Your task to perform on an android device: Open calendar and show me the first week of next month Image 0: 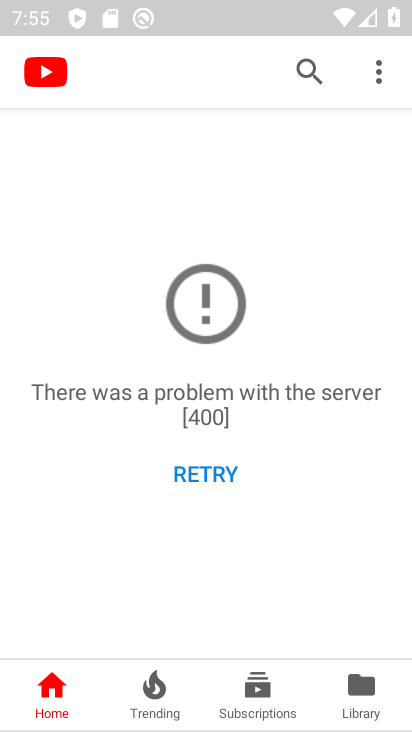
Step 0: press back button
Your task to perform on an android device: Open calendar and show me the first week of next month Image 1: 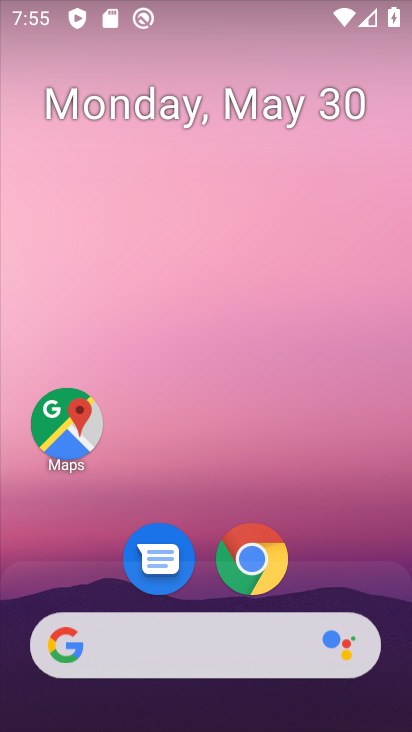
Step 1: drag from (206, 409) to (276, 48)
Your task to perform on an android device: Open calendar and show me the first week of next month Image 2: 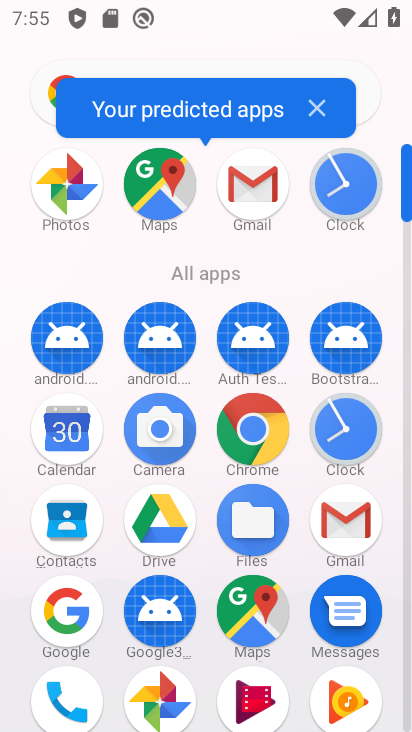
Step 2: click (75, 430)
Your task to perform on an android device: Open calendar and show me the first week of next month Image 3: 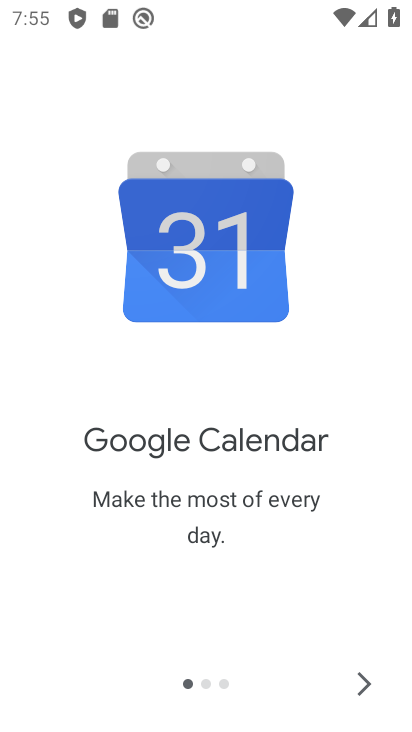
Step 3: click (357, 670)
Your task to perform on an android device: Open calendar and show me the first week of next month Image 4: 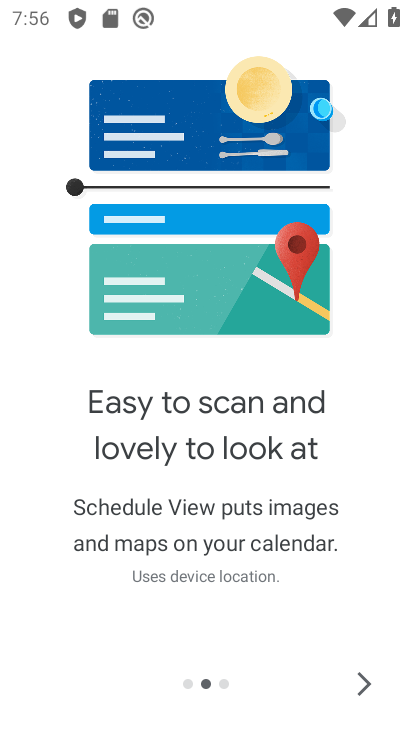
Step 4: click (351, 678)
Your task to perform on an android device: Open calendar and show me the first week of next month Image 5: 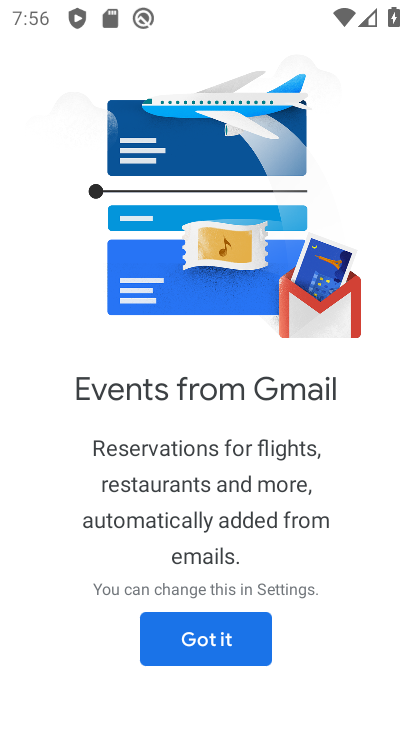
Step 5: click (228, 632)
Your task to perform on an android device: Open calendar and show me the first week of next month Image 6: 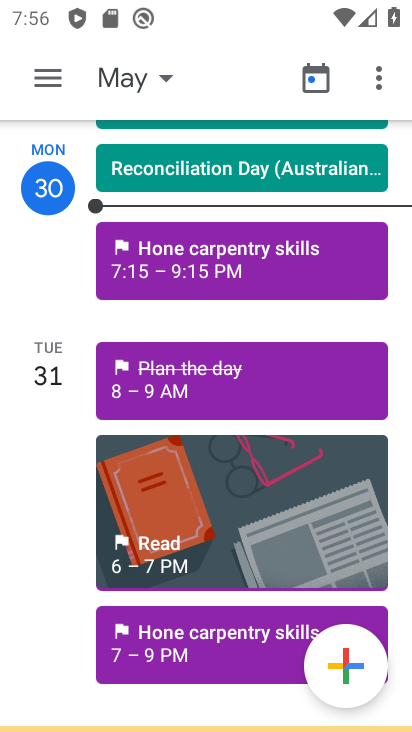
Step 6: click (158, 82)
Your task to perform on an android device: Open calendar and show me the first week of next month Image 7: 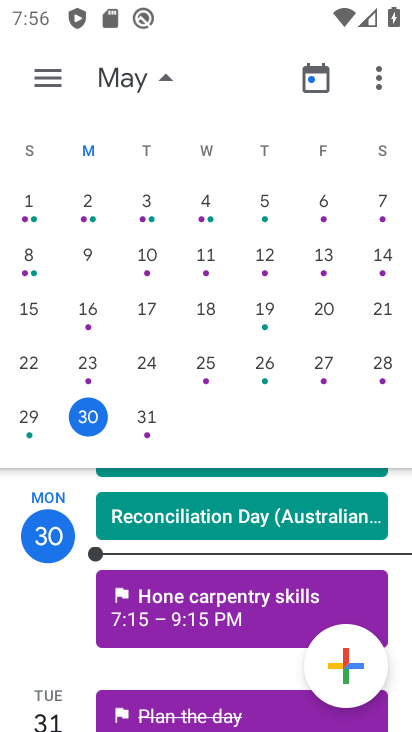
Step 7: task complete